Your task to perform on an android device: Go to Google Image 0: 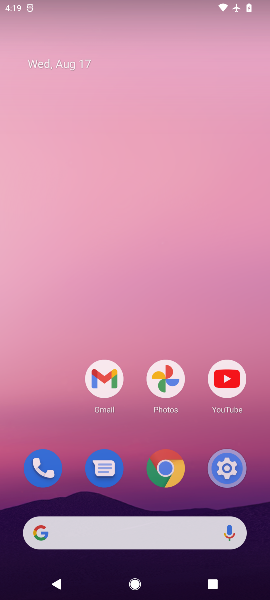
Step 0: click (209, 382)
Your task to perform on an android device: Go to Google Image 1: 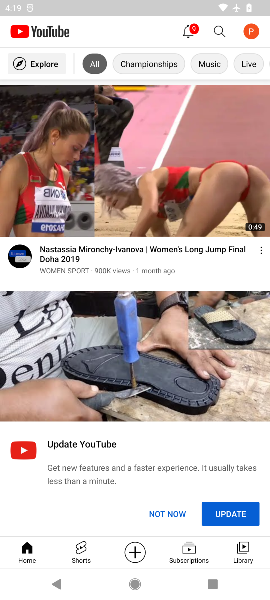
Step 1: press home button
Your task to perform on an android device: Go to Google Image 2: 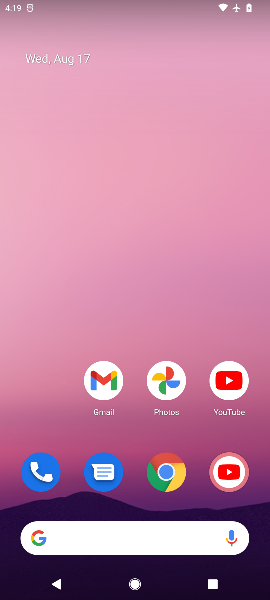
Step 2: click (32, 531)
Your task to perform on an android device: Go to Google Image 3: 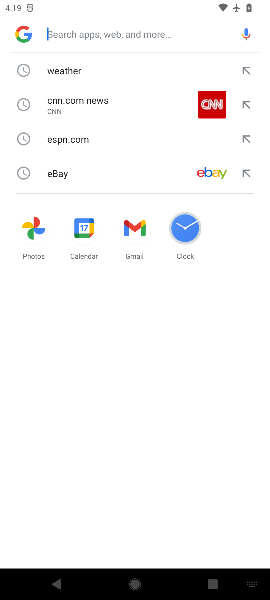
Step 3: click (19, 32)
Your task to perform on an android device: Go to Google Image 4: 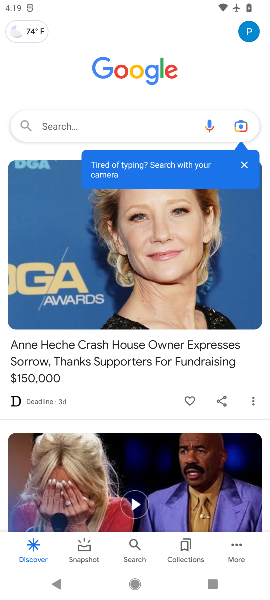
Step 4: task complete